Your task to perform on an android device: Check the weather Image 0: 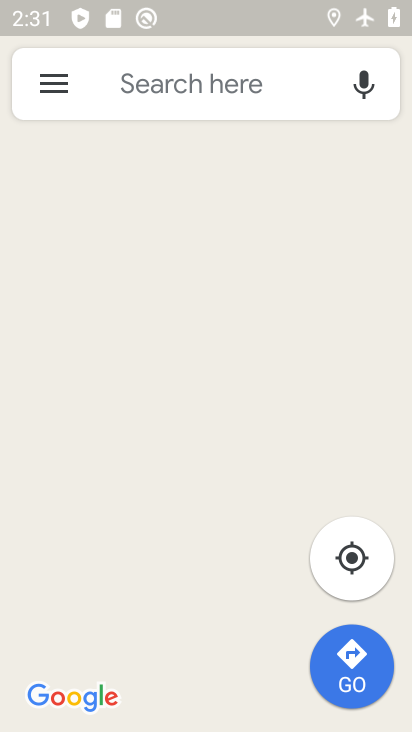
Step 0: press home button
Your task to perform on an android device: Check the weather Image 1: 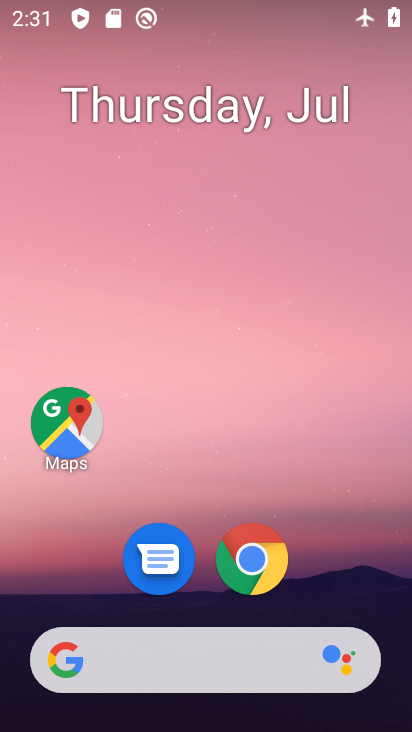
Step 1: drag from (176, 610) to (209, 138)
Your task to perform on an android device: Check the weather Image 2: 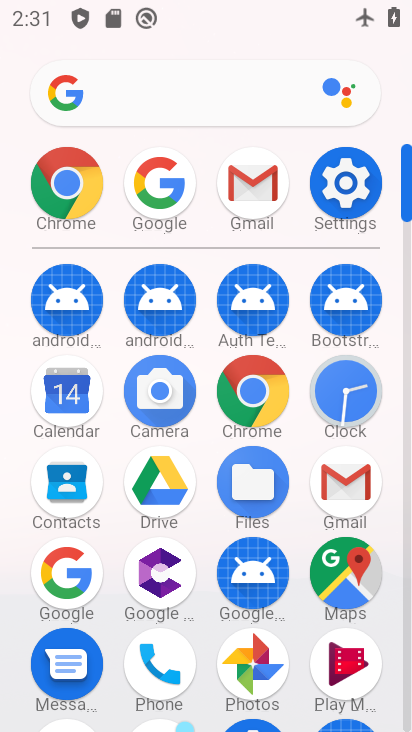
Step 2: click (75, 577)
Your task to perform on an android device: Check the weather Image 3: 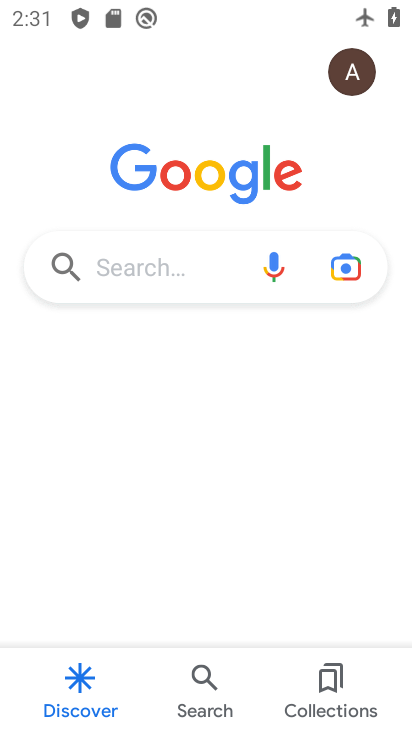
Step 3: click (198, 283)
Your task to perform on an android device: Check the weather Image 4: 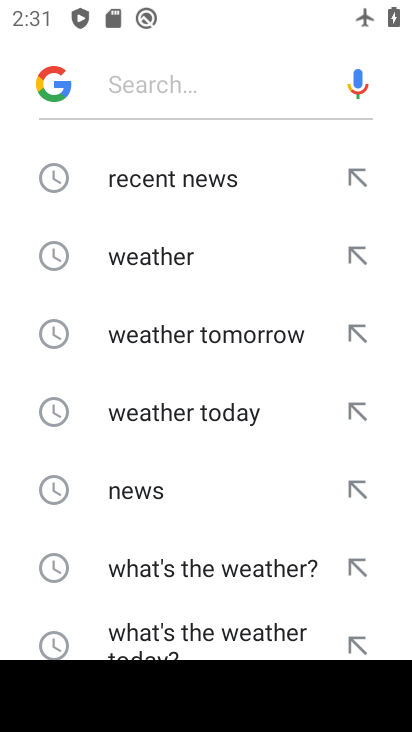
Step 4: click (192, 258)
Your task to perform on an android device: Check the weather Image 5: 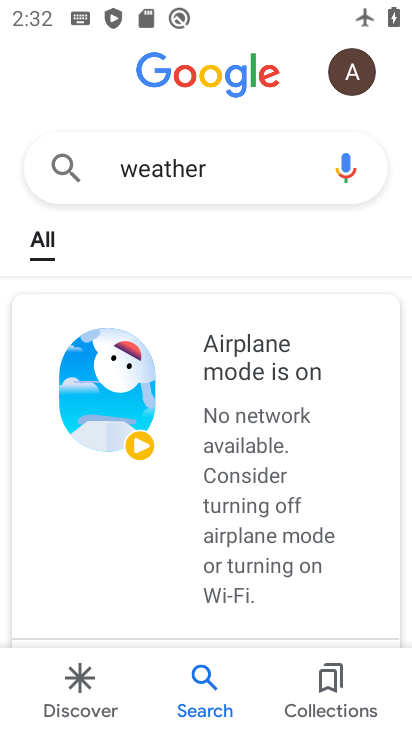
Step 5: task complete